Your task to perform on an android device: add a contact Image 0: 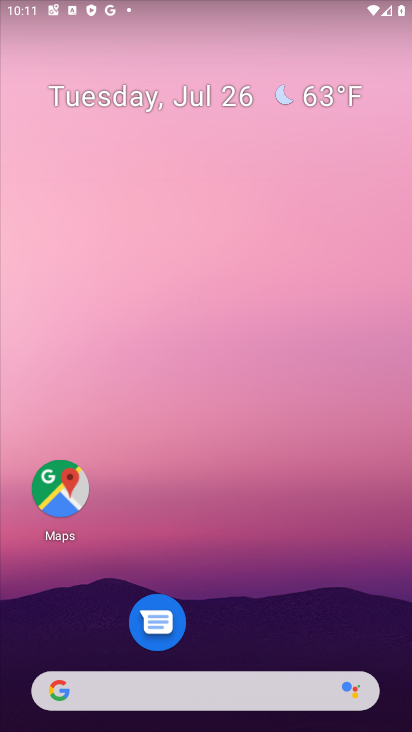
Step 0: drag from (281, 565) to (148, 130)
Your task to perform on an android device: add a contact Image 1: 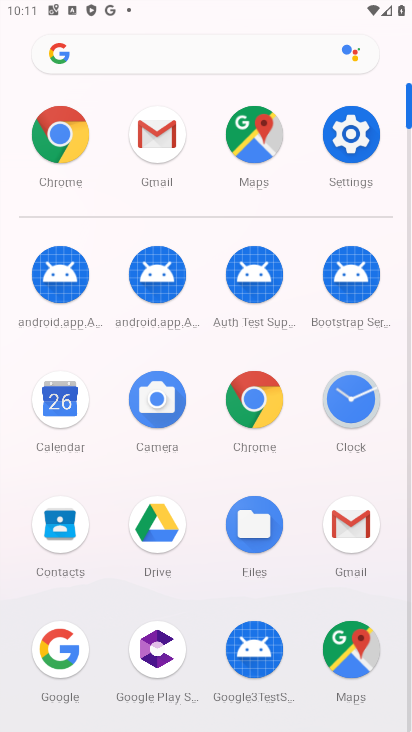
Step 1: drag from (398, 598) to (296, 217)
Your task to perform on an android device: add a contact Image 2: 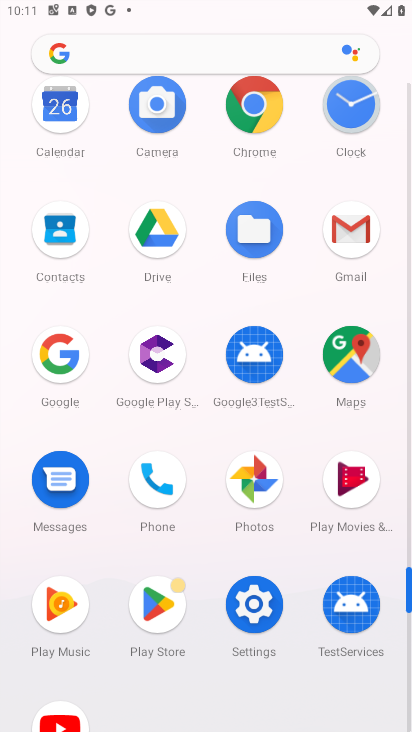
Step 2: click (150, 474)
Your task to perform on an android device: add a contact Image 3: 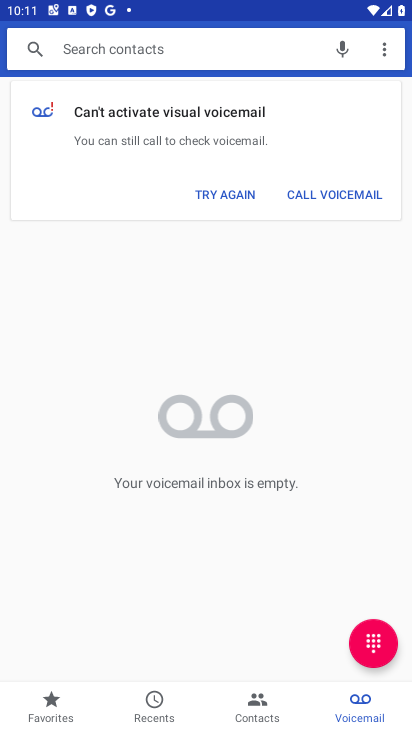
Step 3: click (264, 709)
Your task to perform on an android device: add a contact Image 4: 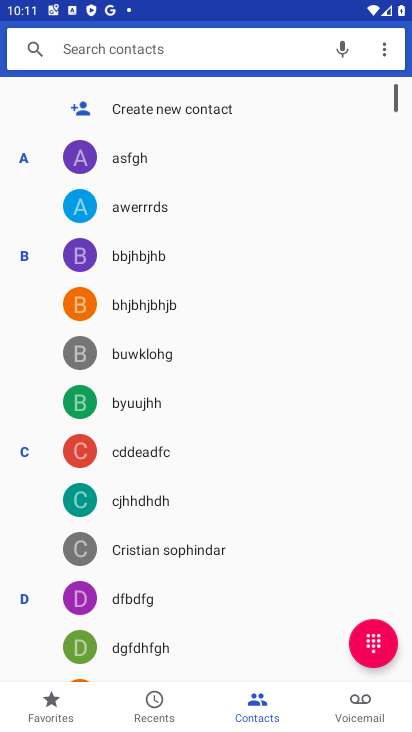
Step 4: click (144, 115)
Your task to perform on an android device: add a contact Image 5: 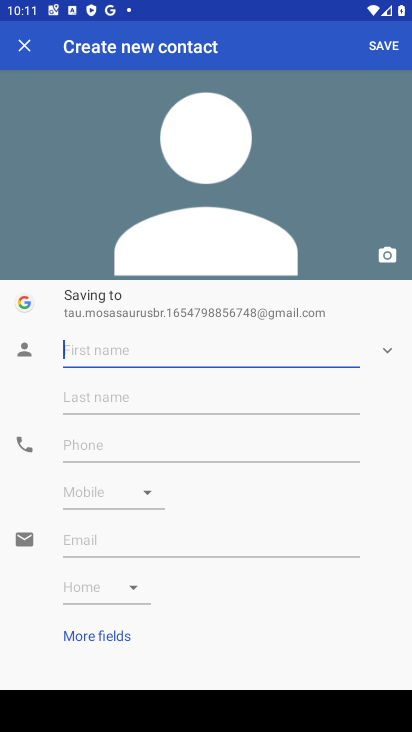
Step 5: type "rrtyytt"
Your task to perform on an android device: add a contact Image 6: 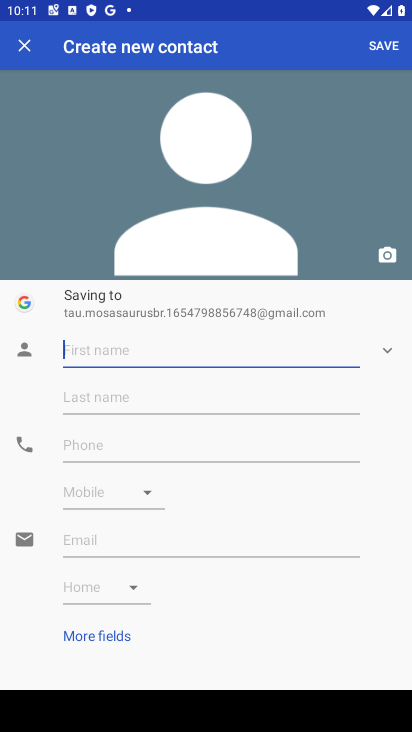
Step 6: click (195, 443)
Your task to perform on an android device: add a contact Image 7: 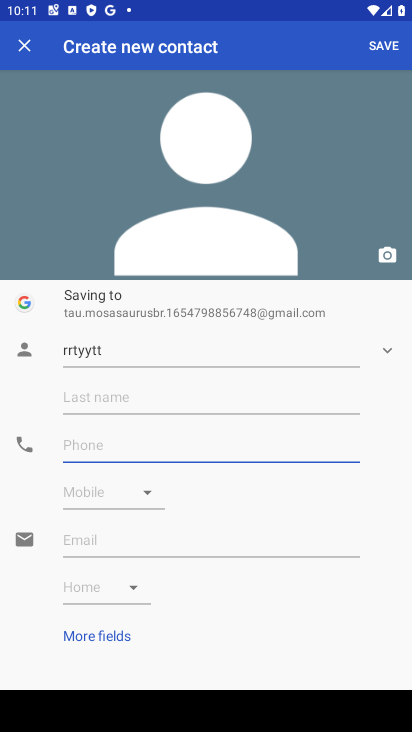
Step 7: type "567866555"
Your task to perform on an android device: add a contact Image 8: 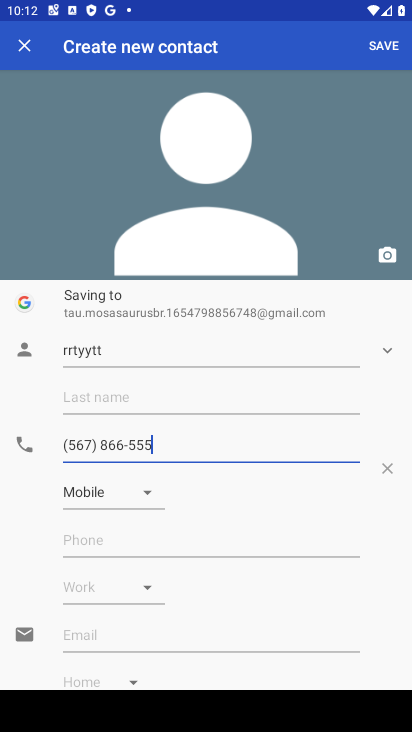
Step 8: click (379, 45)
Your task to perform on an android device: add a contact Image 9: 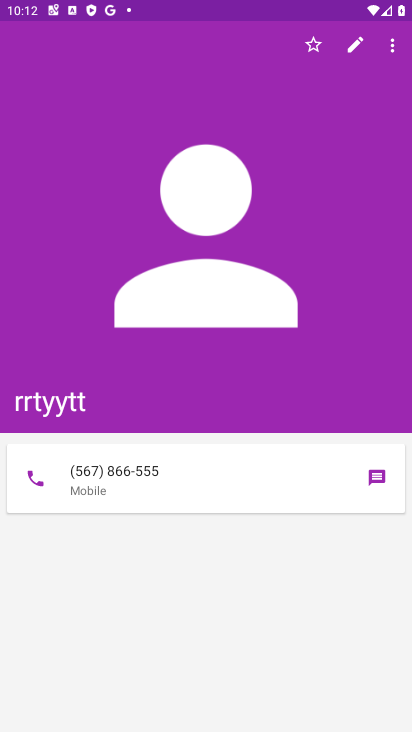
Step 9: task complete